Your task to perform on an android device: toggle priority inbox in the gmail app Image 0: 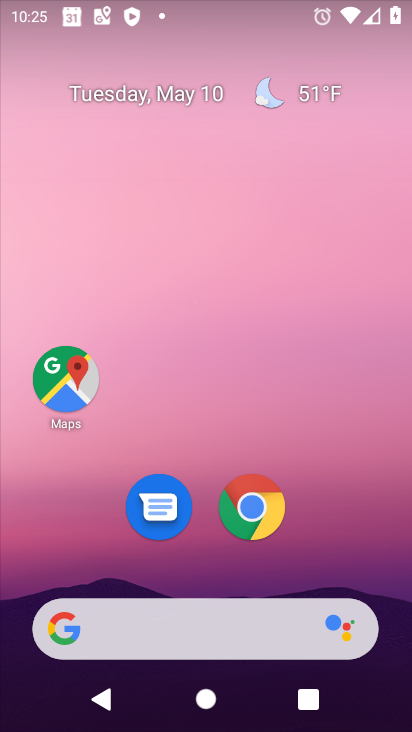
Step 0: drag from (207, 580) to (207, 225)
Your task to perform on an android device: toggle priority inbox in the gmail app Image 1: 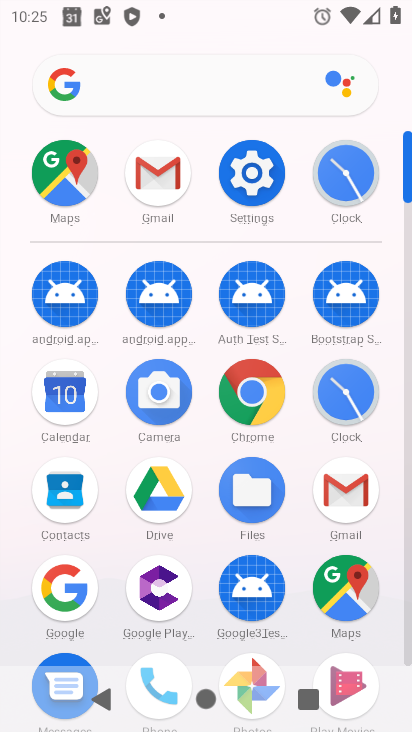
Step 1: click (163, 165)
Your task to perform on an android device: toggle priority inbox in the gmail app Image 2: 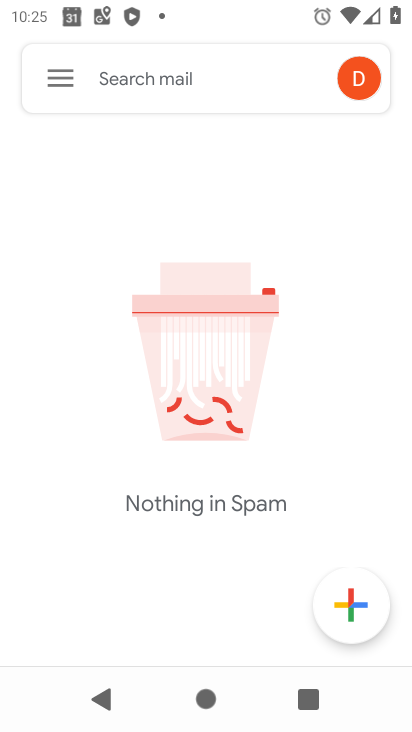
Step 2: click (44, 90)
Your task to perform on an android device: toggle priority inbox in the gmail app Image 3: 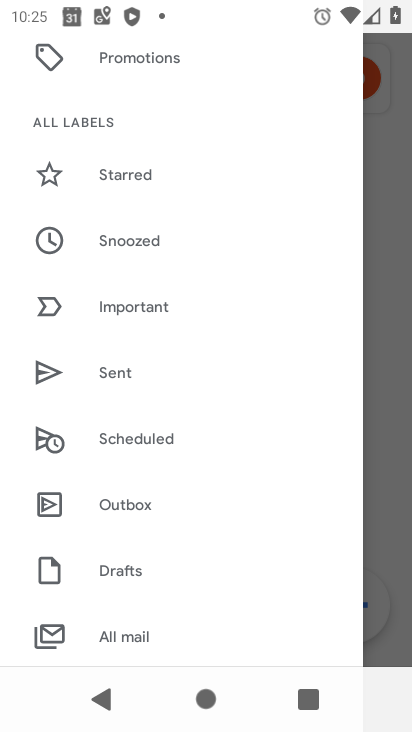
Step 3: drag from (142, 559) to (200, 102)
Your task to perform on an android device: toggle priority inbox in the gmail app Image 4: 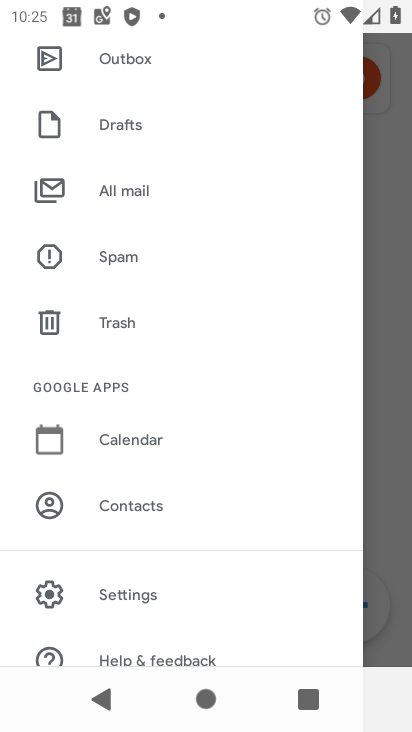
Step 4: click (105, 594)
Your task to perform on an android device: toggle priority inbox in the gmail app Image 5: 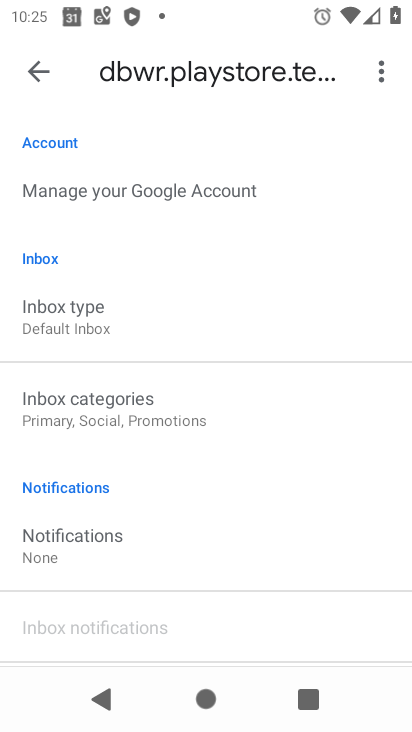
Step 5: click (128, 338)
Your task to perform on an android device: toggle priority inbox in the gmail app Image 6: 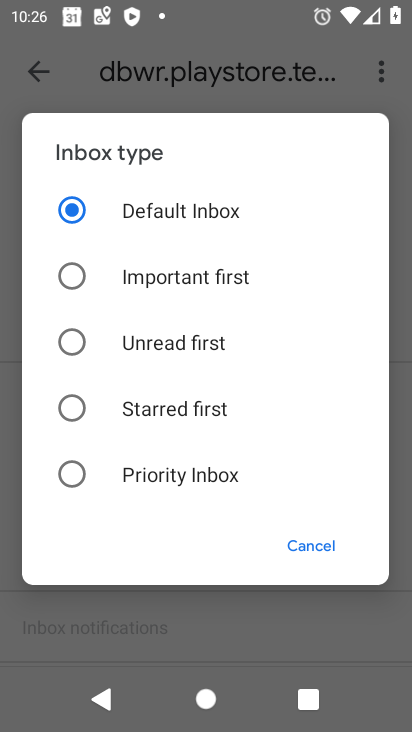
Step 6: click (187, 429)
Your task to perform on an android device: toggle priority inbox in the gmail app Image 7: 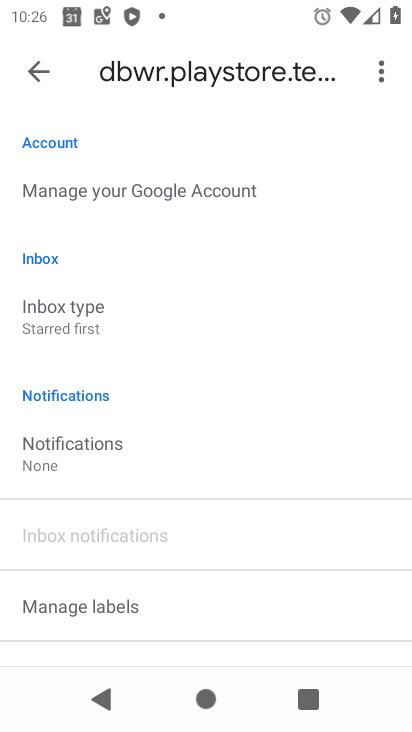
Step 7: task complete